Your task to perform on an android device: change the clock display to analog Image 0: 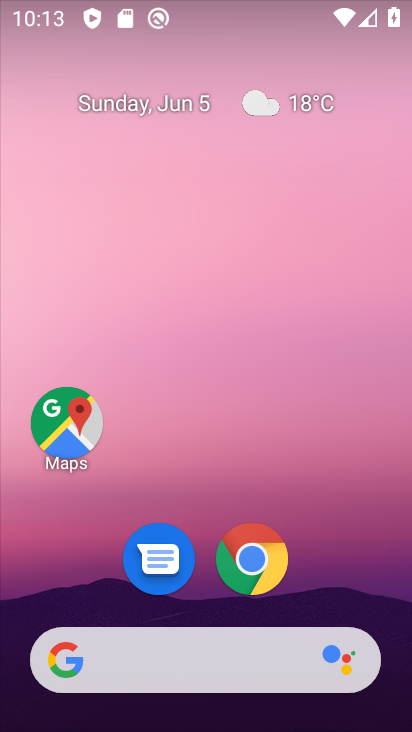
Step 0: drag from (327, 565) to (321, 104)
Your task to perform on an android device: change the clock display to analog Image 1: 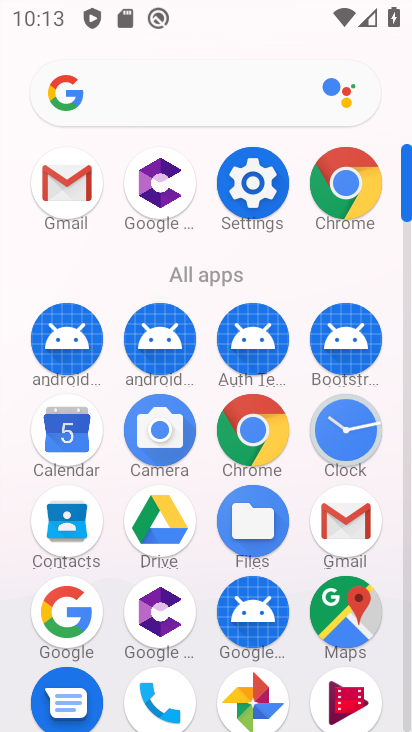
Step 1: click (324, 418)
Your task to perform on an android device: change the clock display to analog Image 2: 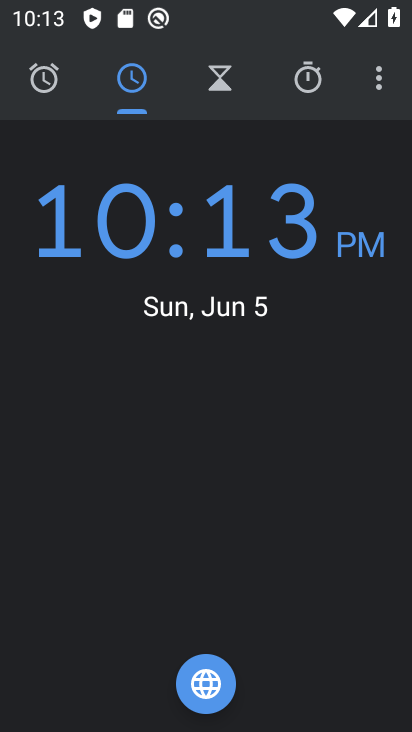
Step 2: click (371, 78)
Your task to perform on an android device: change the clock display to analog Image 3: 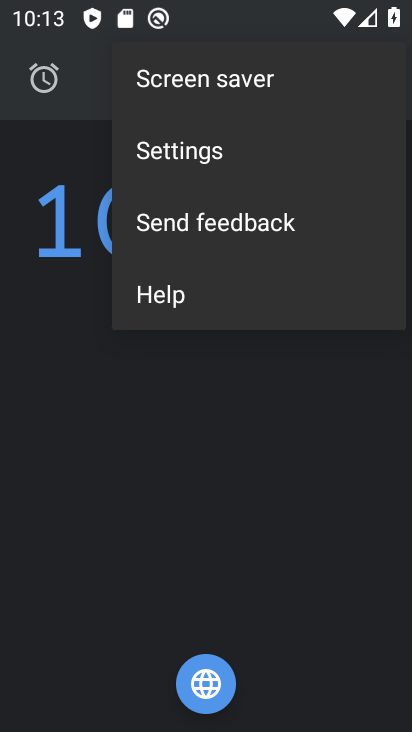
Step 3: click (236, 151)
Your task to perform on an android device: change the clock display to analog Image 4: 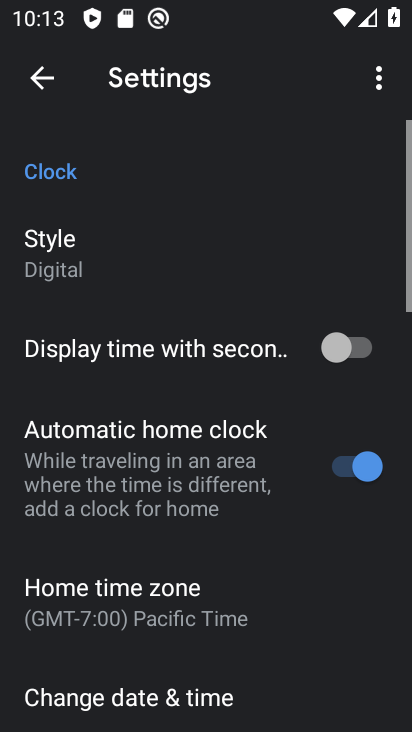
Step 4: drag from (210, 590) to (240, 216)
Your task to perform on an android device: change the clock display to analog Image 5: 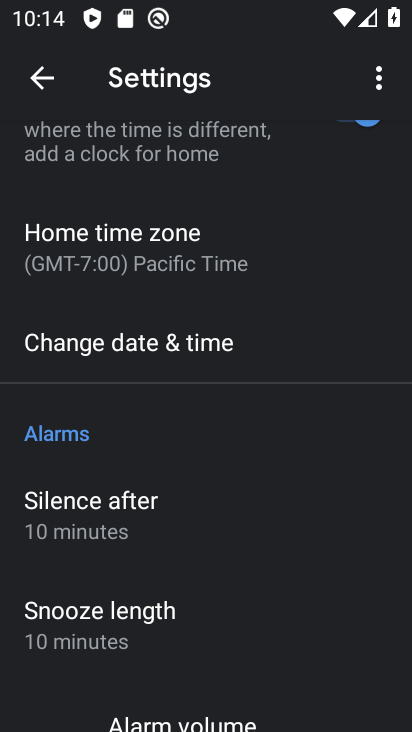
Step 5: drag from (249, 194) to (209, 548)
Your task to perform on an android device: change the clock display to analog Image 6: 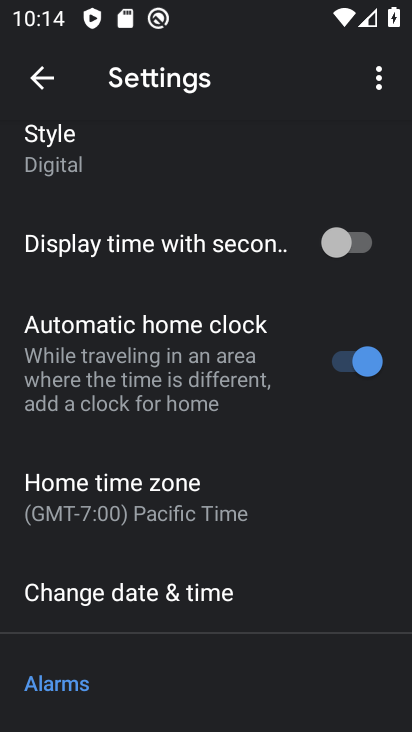
Step 6: click (71, 168)
Your task to perform on an android device: change the clock display to analog Image 7: 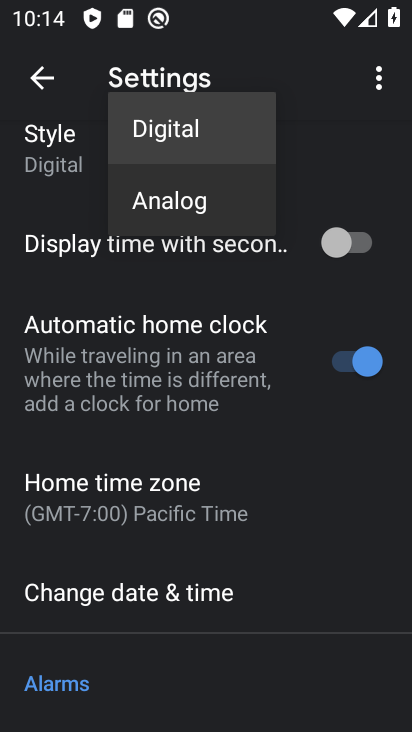
Step 7: click (185, 200)
Your task to perform on an android device: change the clock display to analog Image 8: 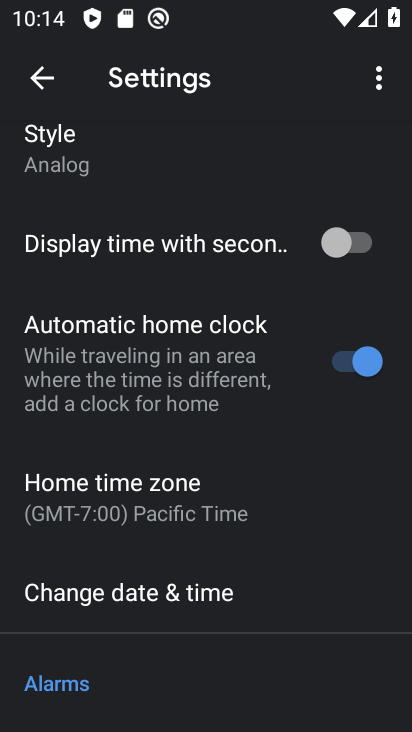
Step 8: task complete